Your task to perform on an android device: turn on priority inbox in the gmail app Image 0: 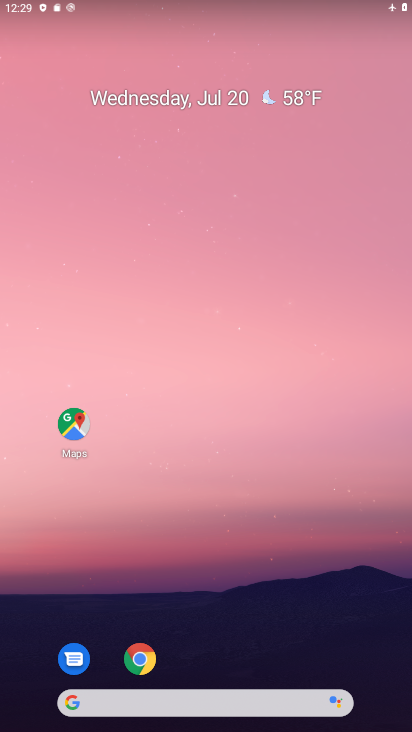
Step 0: drag from (222, 661) to (256, 22)
Your task to perform on an android device: turn on priority inbox in the gmail app Image 1: 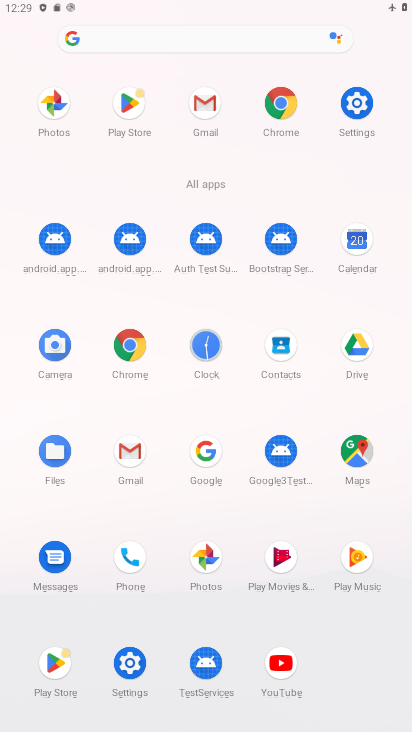
Step 1: click (126, 443)
Your task to perform on an android device: turn on priority inbox in the gmail app Image 2: 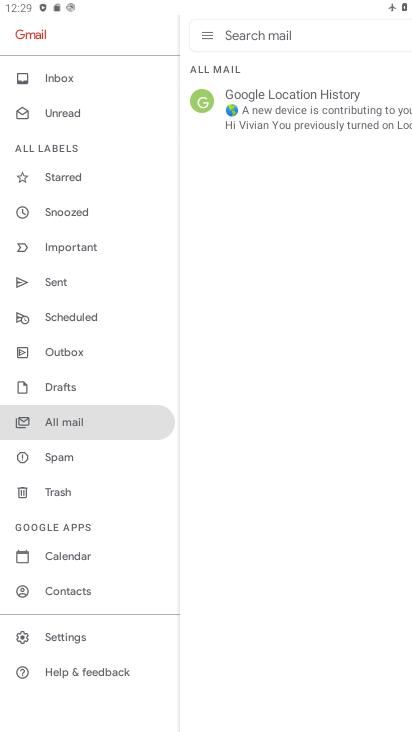
Step 2: click (92, 634)
Your task to perform on an android device: turn on priority inbox in the gmail app Image 3: 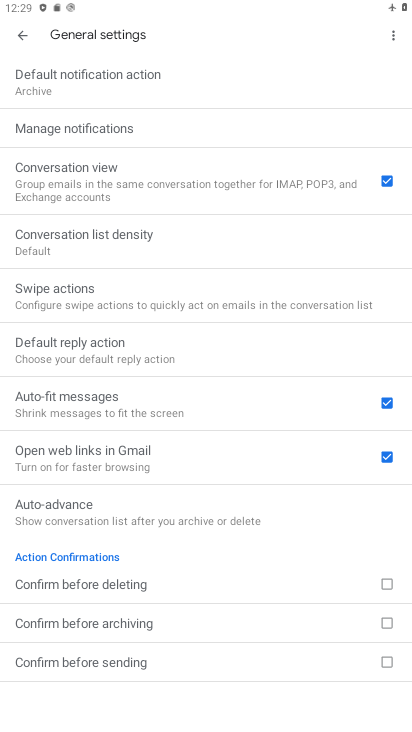
Step 3: click (22, 28)
Your task to perform on an android device: turn on priority inbox in the gmail app Image 4: 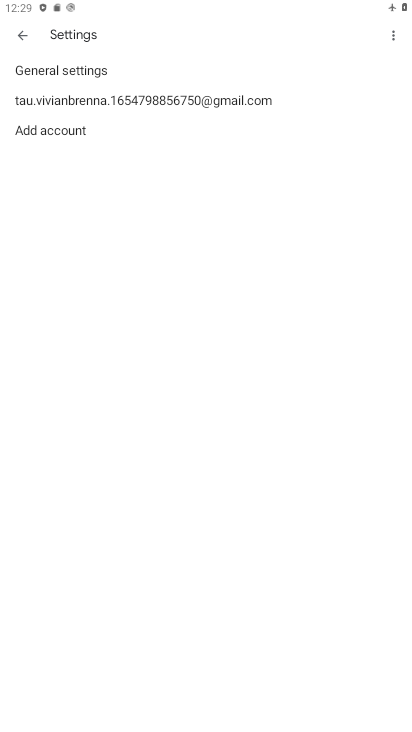
Step 4: click (90, 100)
Your task to perform on an android device: turn on priority inbox in the gmail app Image 5: 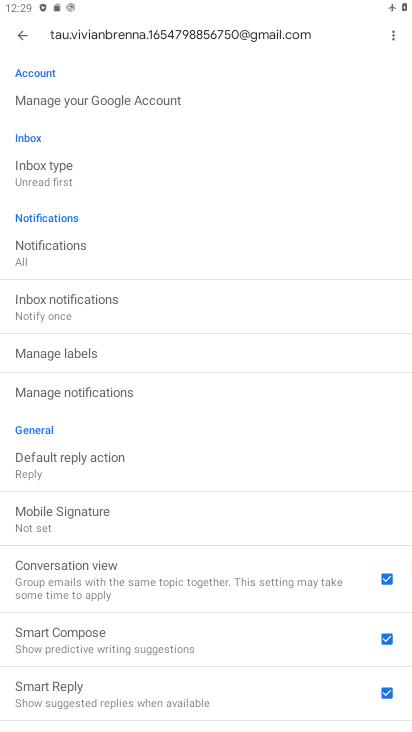
Step 5: click (84, 173)
Your task to perform on an android device: turn on priority inbox in the gmail app Image 6: 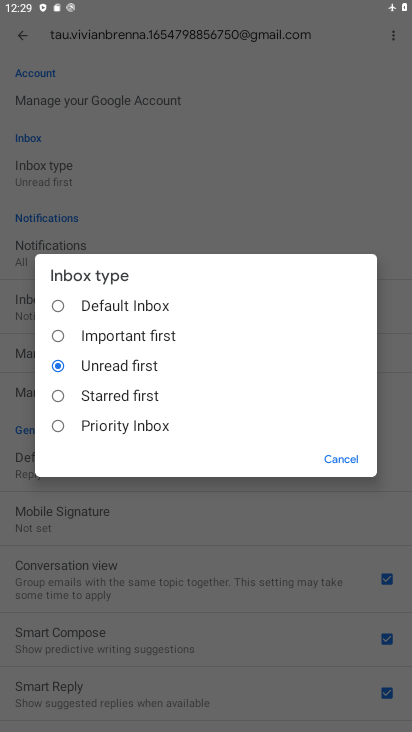
Step 6: click (61, 425)
Your task to perform on an android device: turn on priority inbox in the gmail app Image 7: 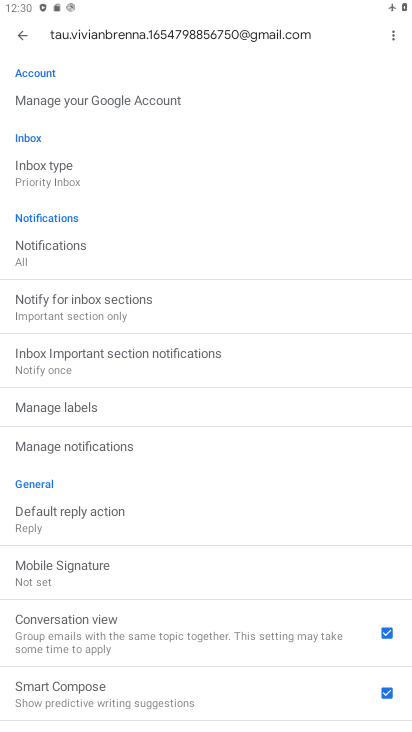
Step 7: click (85, 168)
Your task to perform on an android device: turn on priority inbox in the gmail app Image 8: 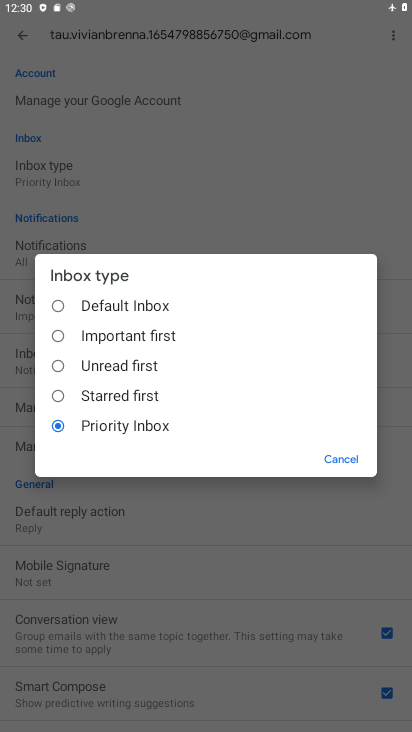
Step 8: click (74, 424)
Your task to perform on an android device: turn on priority inbox in the gmail app Image 9: 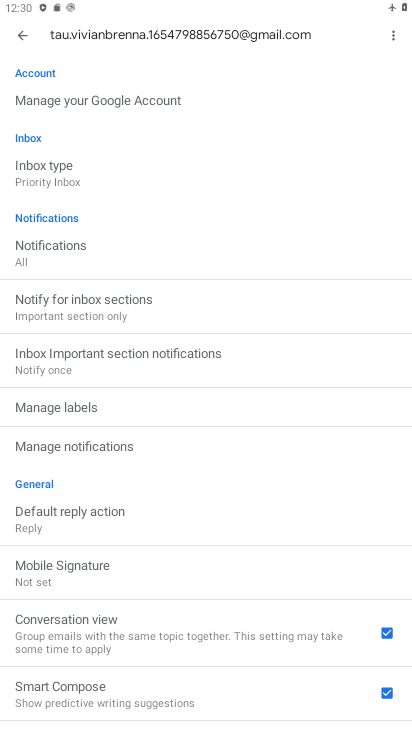
Step 9: task complete